Your task to perform on an android device: open a bookmark in the chrome app Image 0: 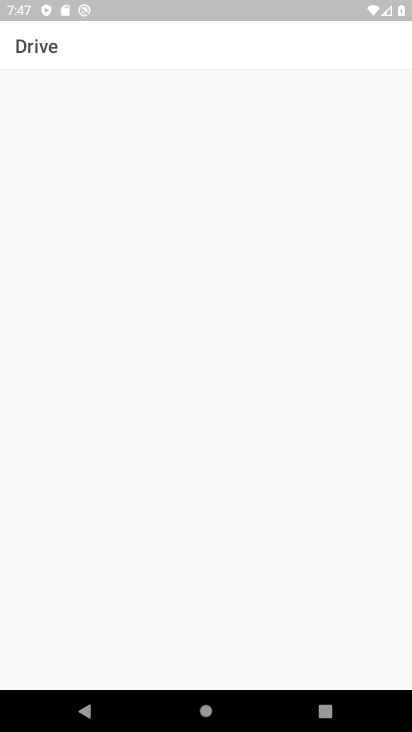
Step 0: press home button
Your task to perform on an android device: open a bookmark in the chrome app Image 1: 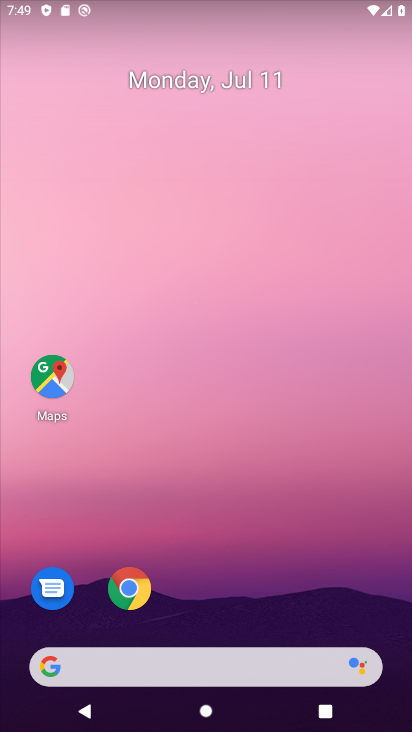
Step 1: click (139, 587)
Your task to perform on an android device: open a bookmark in the chrome app Image 2: 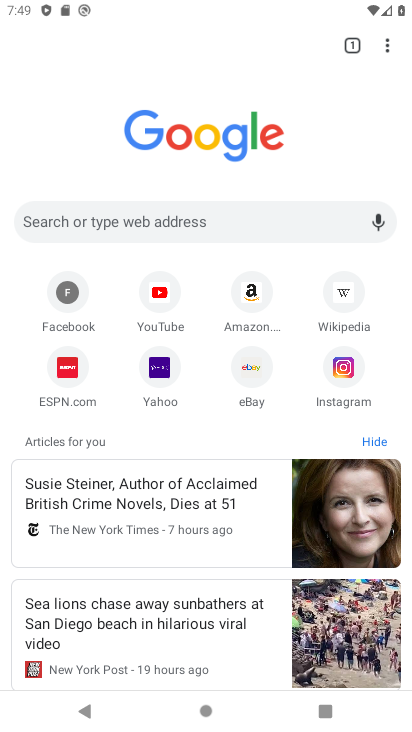
Step 2: click (384, 48)
Your task to perform on an android device: open a bookmark in the chrome app Image 3: 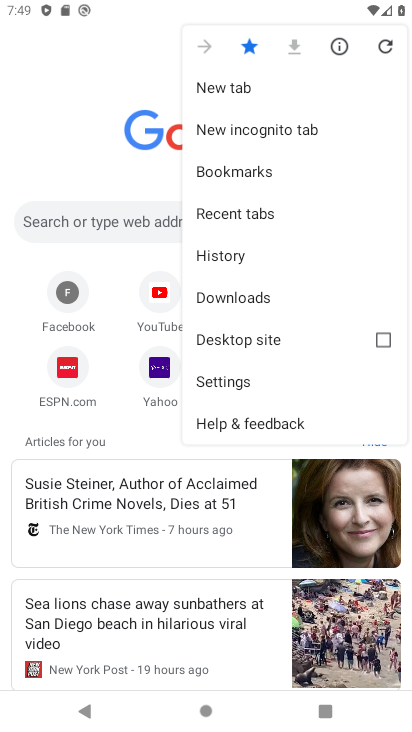
Step 3: click (263, 168)
Your task to perform on an android device: open a bookmark in the chrome app Image 4: 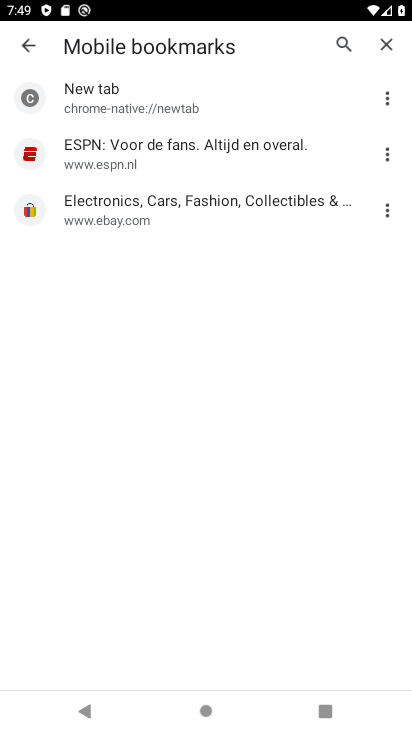
Step 4: click (264, 171)
Your task to perform on an android device: open a bookmark in the chrome app Image 5: 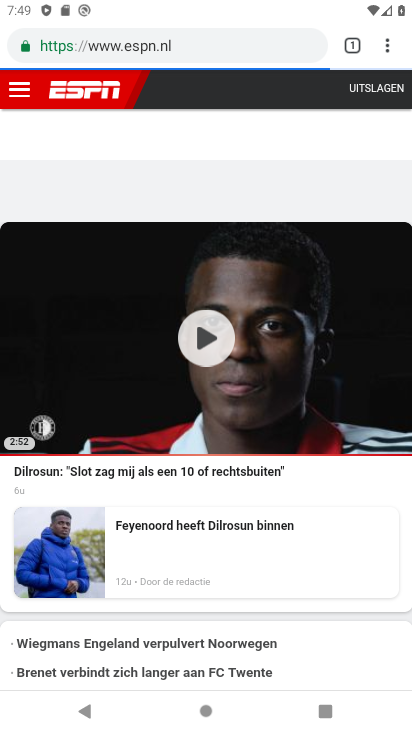
Step 5: task complete